Your task to perform on an android device: toggle location history Image 0: 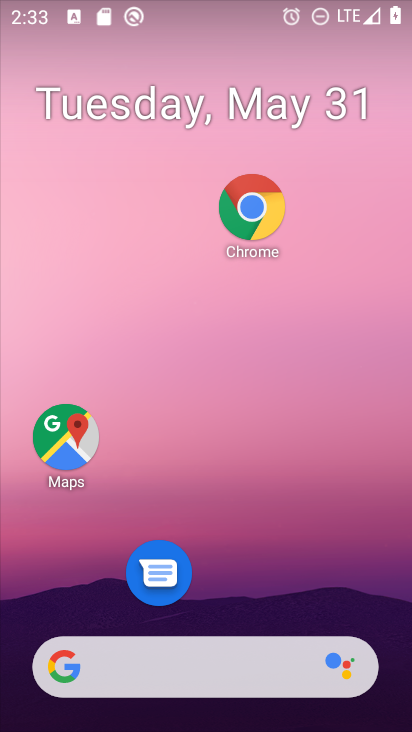
Step 0: drag from (192, 657) to (361, 123)
Your task to perform on an android device: toggle location history Image 1: 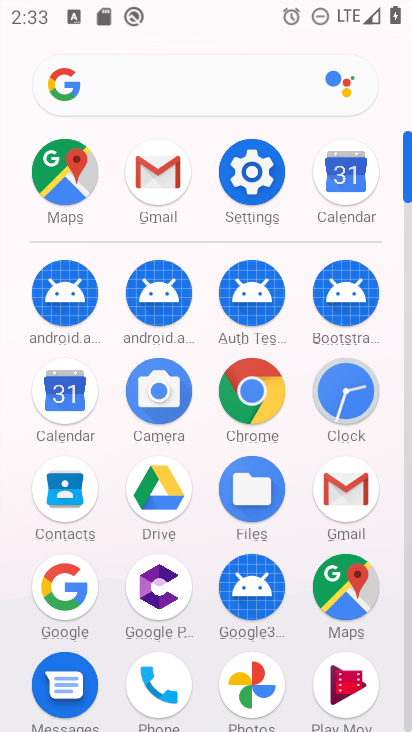
Step 1: click (269, 194)
Your task to perform on an android device: toggle location history Image 2: 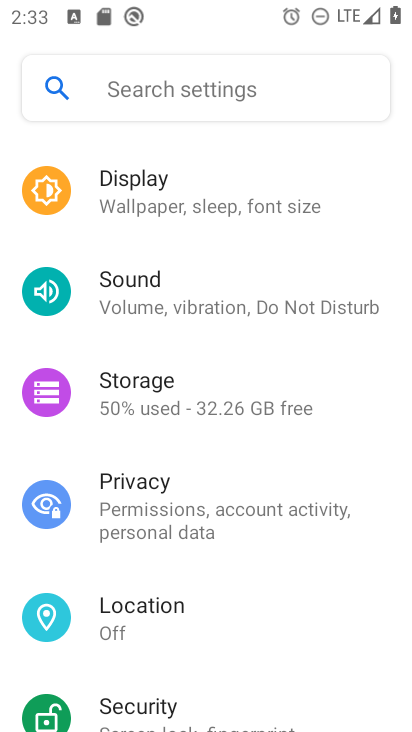
Step 2: drag from (258, 400) to (271, 363)
Your task to perform on an android device: toggle location history Image 3: 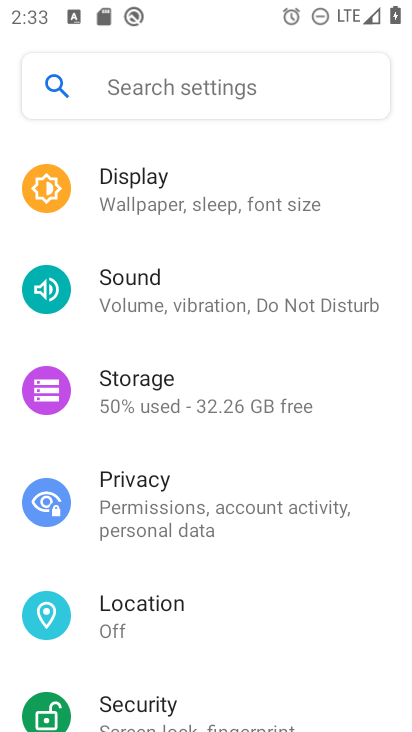
Step 3: click (176, 615)
Your task to perform on an android device: toggle location history Image 4: 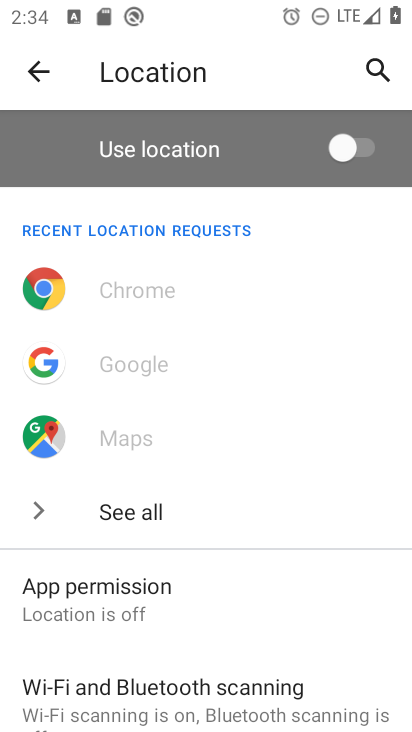
Step 4: drag from (187, 658) to (258, 323)
Your task to perform on an android device: toggle location history Image 5: 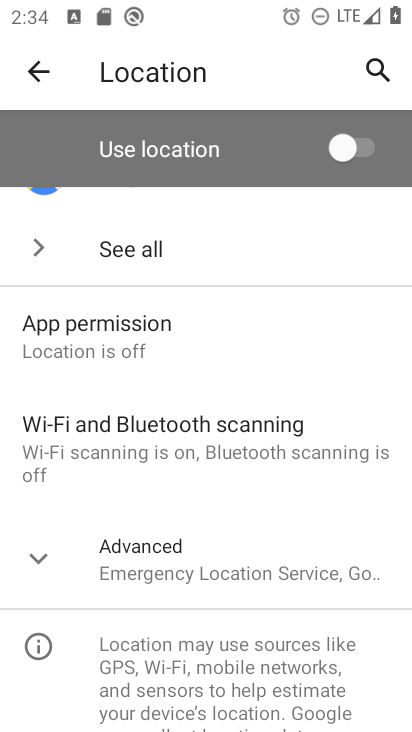
Step 5: click (229, 550)
Your task to perform on an android device: toggle location history Image 6: 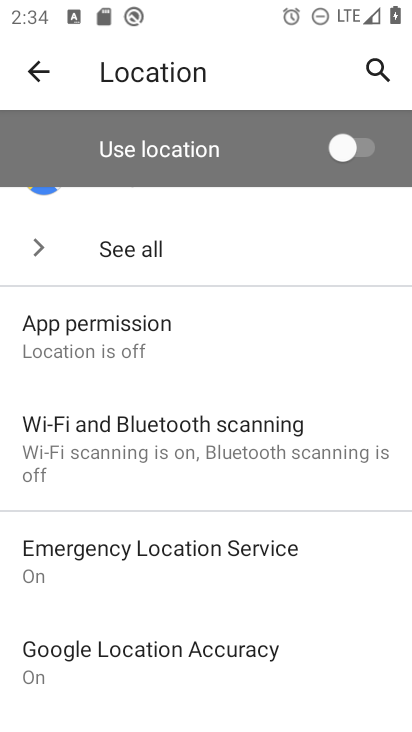
Step 6: drag from (337, 602) to (381, 308)
Your task to perform on an android device: toggle location history Image 7: 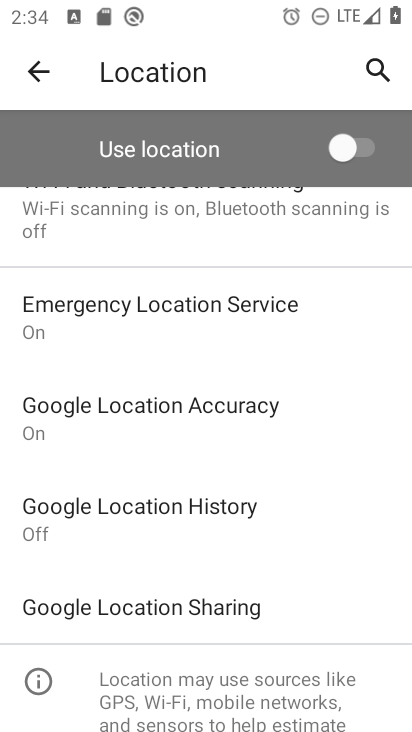
Step 7: click (254, 535)
Your task to perform on an android device: toggle location history Image 8: 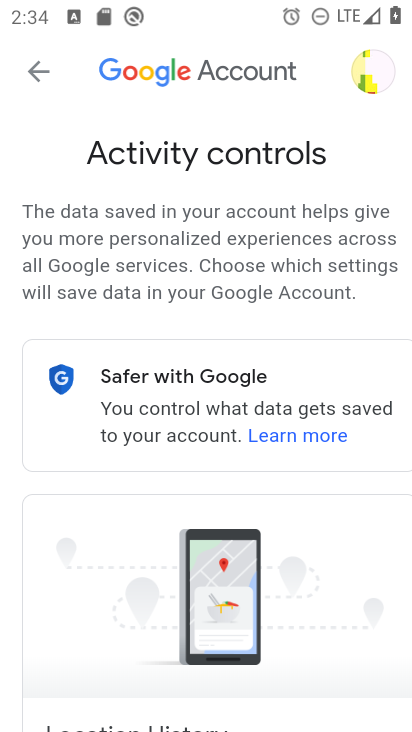
Step 8: drag from (286, 655) to (278, 385)
Your task to perform on an android device: toggle location history Image 9: 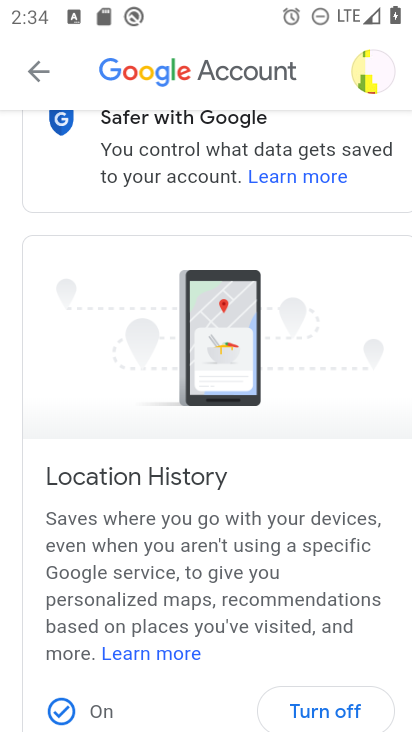
Step 9: drag from (310, 530) to (302, 304)
Your task to perform on an android device: toggle location history Image 10: 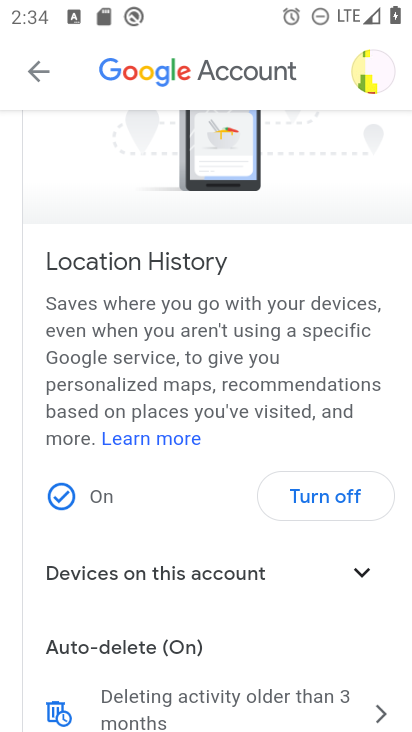
Step 10: click (334, 490)
Your task to perform on an android device: toggle location history Image 11: 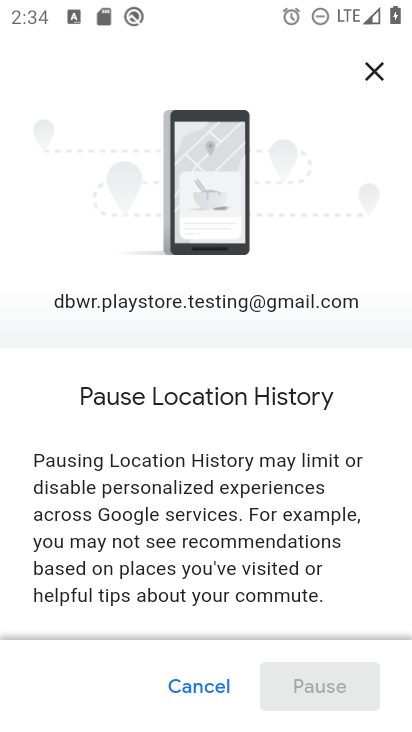
Step 11: drag from (315, 549) to (344, 264)
Your task to perform on an android device: toggle location history Image 12: 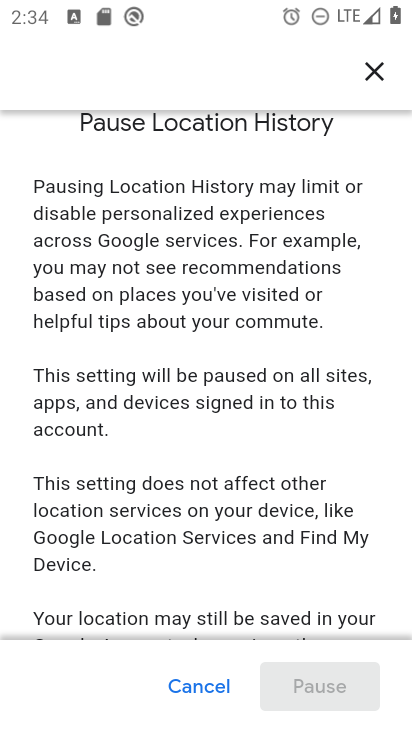
Step 12: drag from (319, 506) to (348, 242)
Your task to perform on an android device: toggle location history Image 13: 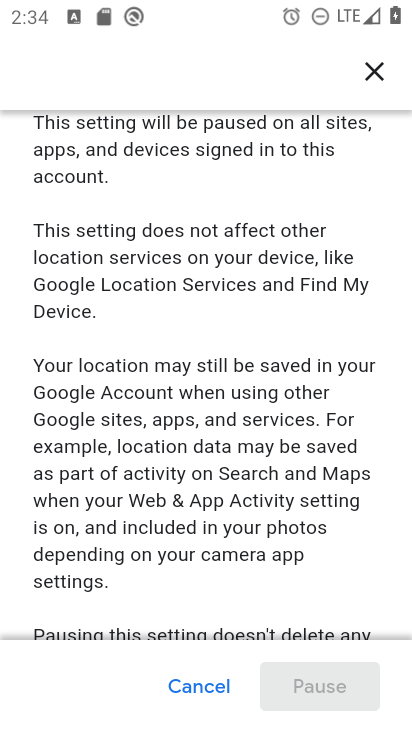
Step 13: drag from (314, 572) to (353, 278)
Your task to perform on an android device: toggle location history Image 14: 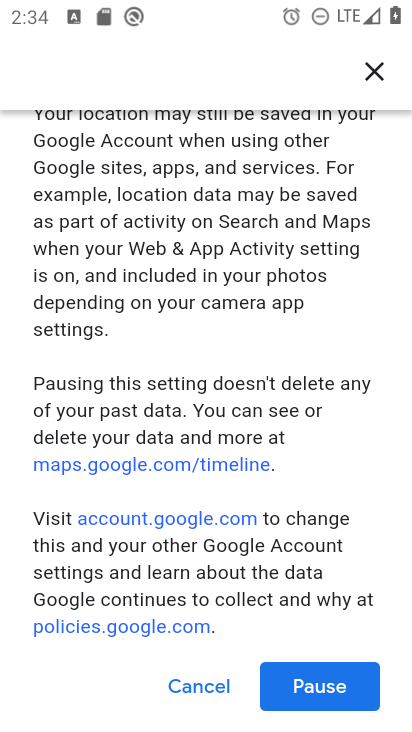
Step 14: click (318, 682)
Your task to perform on an android device: toggle location history Image 15: 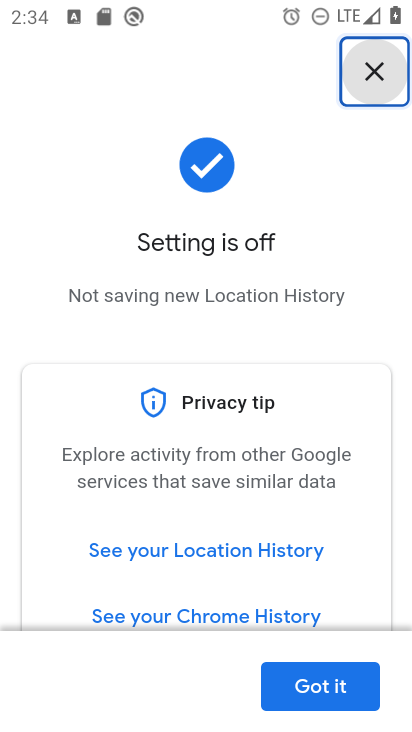
Step 15: click (318, 682)
Your task to perform on an android device: toggle location history Image 16: 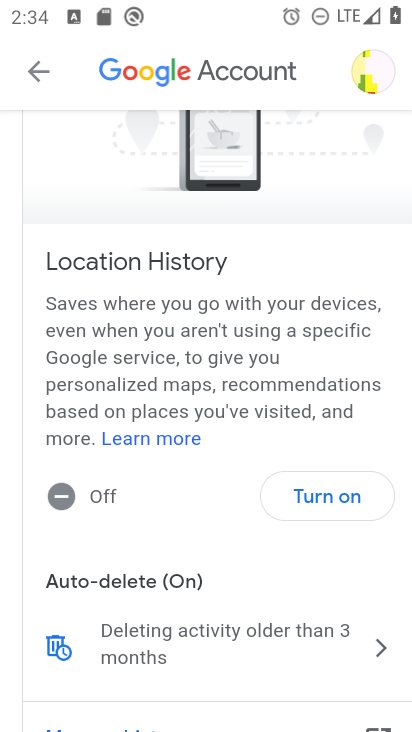
Step 16: task complete